Your task to perform on an android device: Open Wikipedia Image 0: 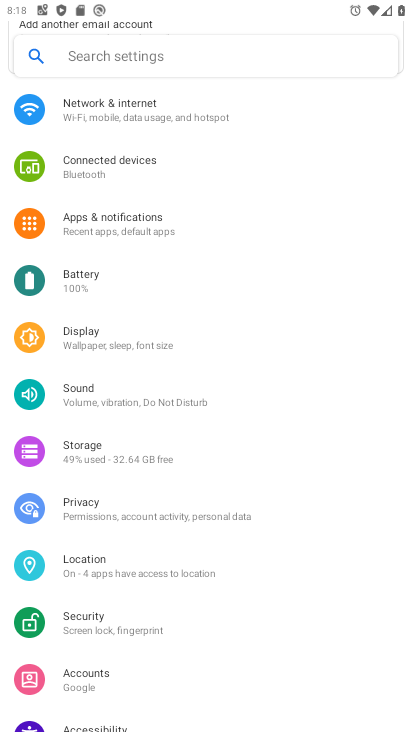
Step 0: press home button
Your task to perform on an android device: Open Wikipedia Image 1: 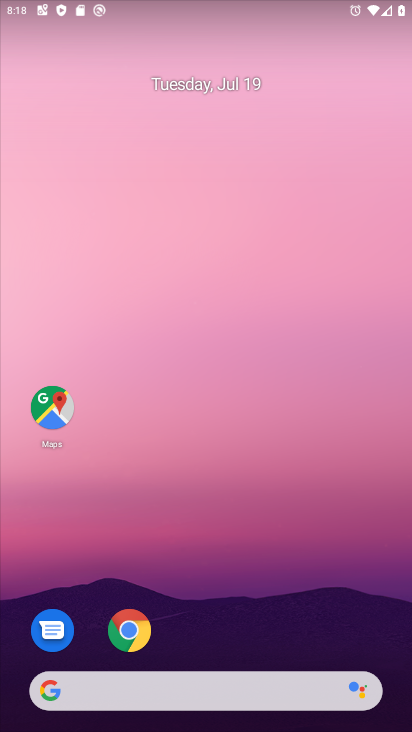
Step 1: click (125, 624)
Your task to perform on an android device: Open Wikipedia Image 2: 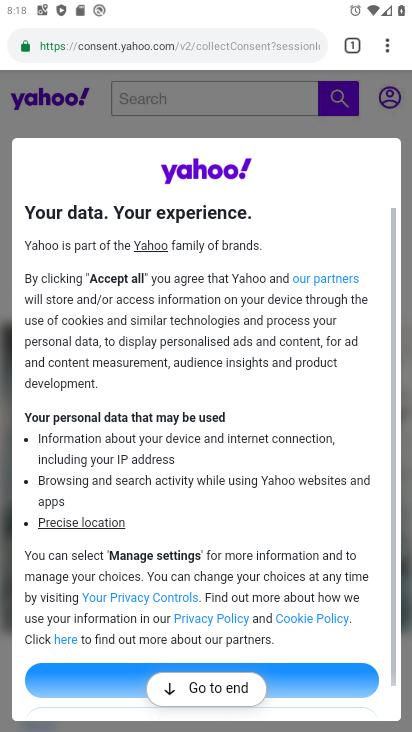
Step 2: click (349, 45)
Your task to perform on an android device: Open Wikipedia Image 3: 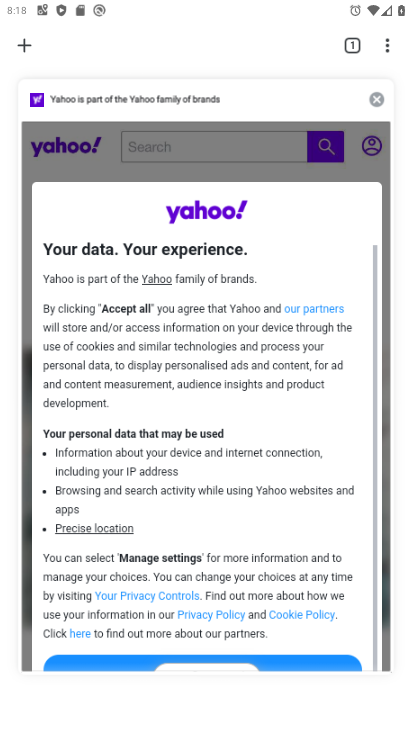
Step 3: click (379, 101)
Your task to perform on an android device: Open Wikipedia Image 4: 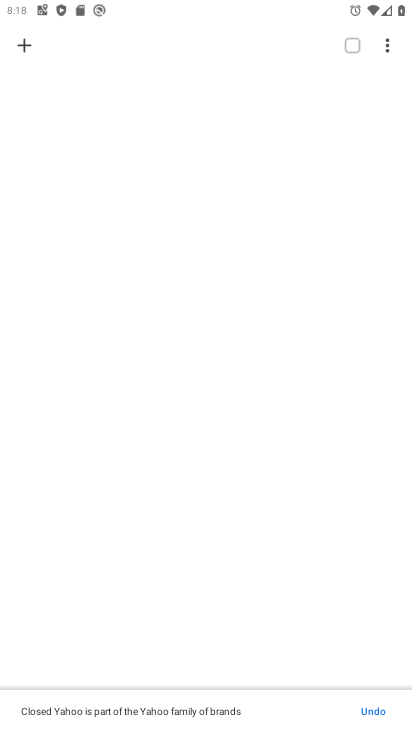
Step 4: click (22, 49)
Your task to perform on an android device: Open Wikipedia Image 5: 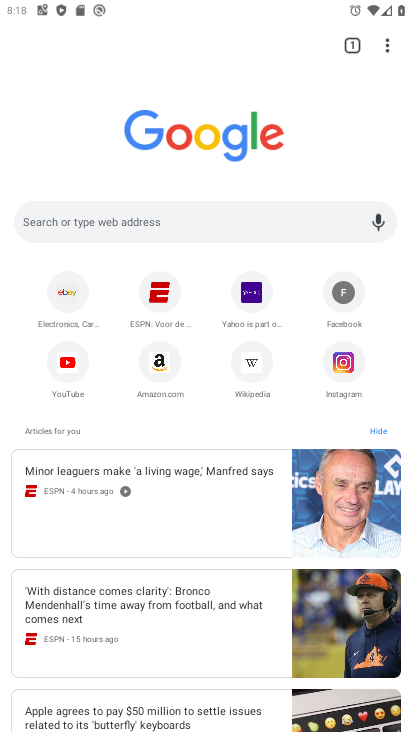
Step 5: click (246, 376)
Your task to perform on an android device: Open Wikipedia Image 6: 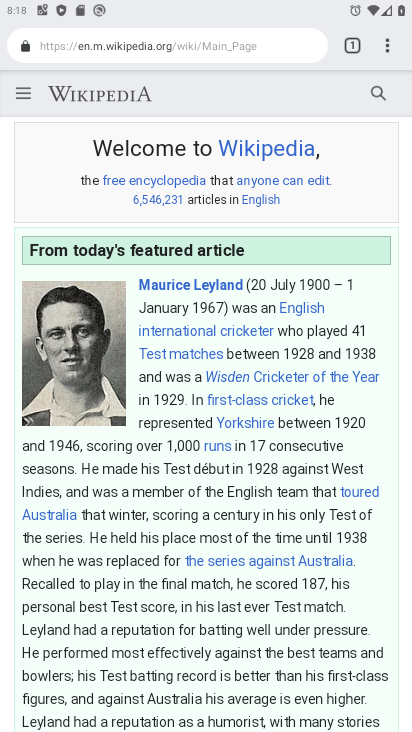
Step 6: task complete